Your task to perform on an android device: move a message to another label in the gmail app Image 0: 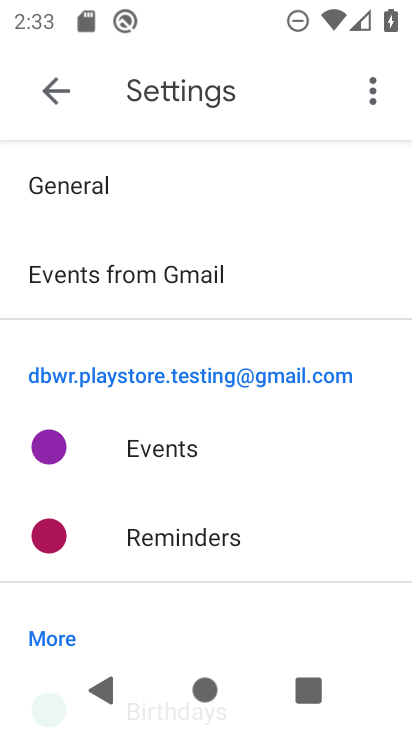
Step 0: press home button
Your task to perform on an android device: move a message to another label in the gmail app Image 1: 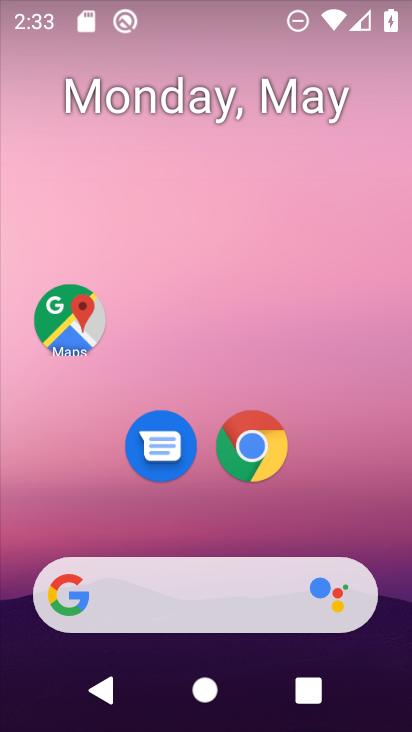
Step 1: drag from (142, 528) to (406, 5)
Your task to perform on an android device: move a message to another label in the gmail app Image 2: 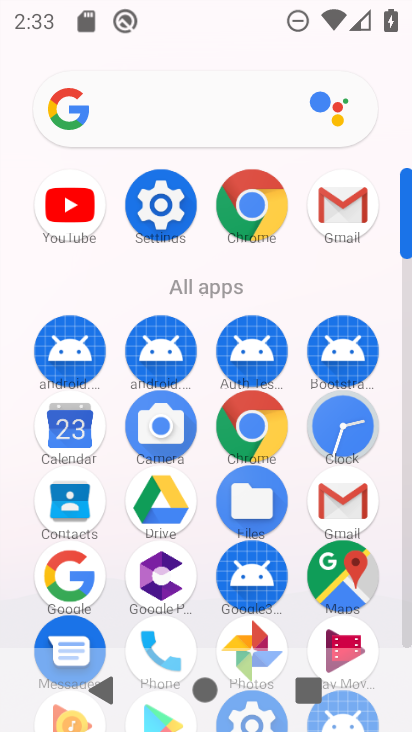
Step 2: click (343, 212)
Your task to perform on an android device: move a message to another label in the gmail app Image 3: 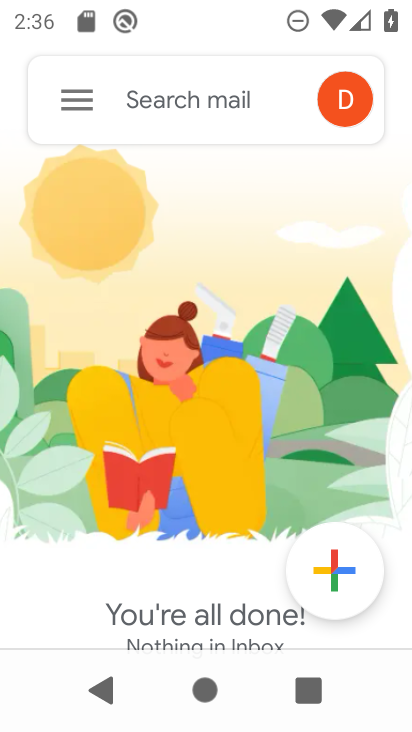
Step 3: task complete